Your task to perform on an android device: toggle pop-ups in chrome Image 0: 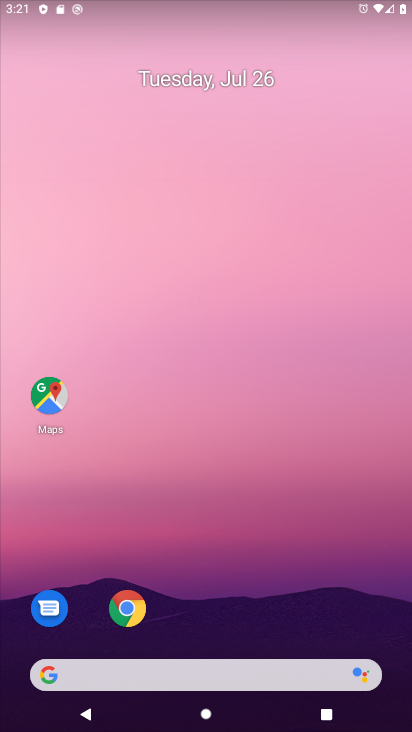
Step 0: drag from (380, 679) to (337, 137)
Your task to perform on an android device: toggle pop-ups in chrome Image 1: 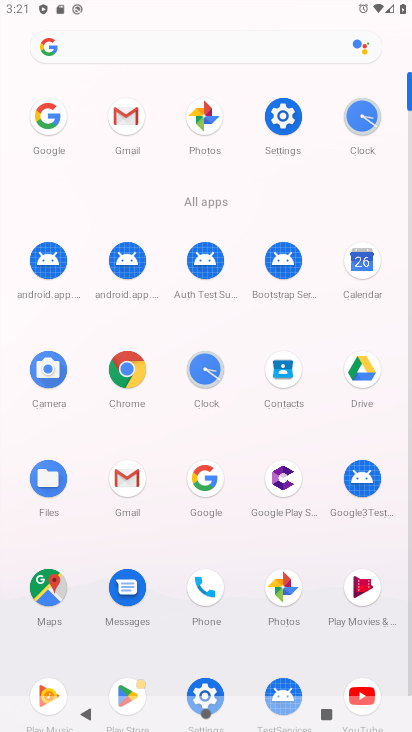
Step 1: click (126, 366)
Your task to perform on an android device: toggle pop-ups in chrome Image 2: 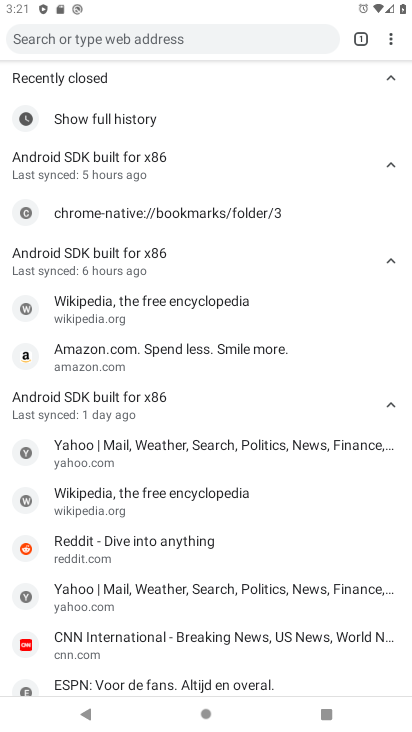
Step 2: click (394, 38)
Your task to perform on an android device: toggle pop-ups in chrome Image 3: 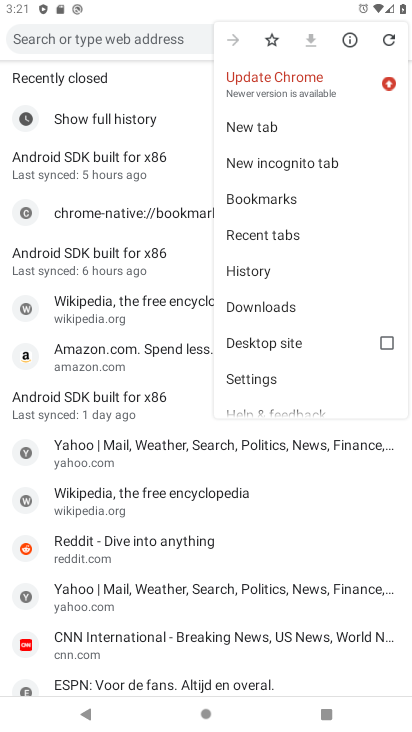
Step 3: click (259, 371)
Your task to perform on an android device: toggle pop-ups in chrome Image 4: 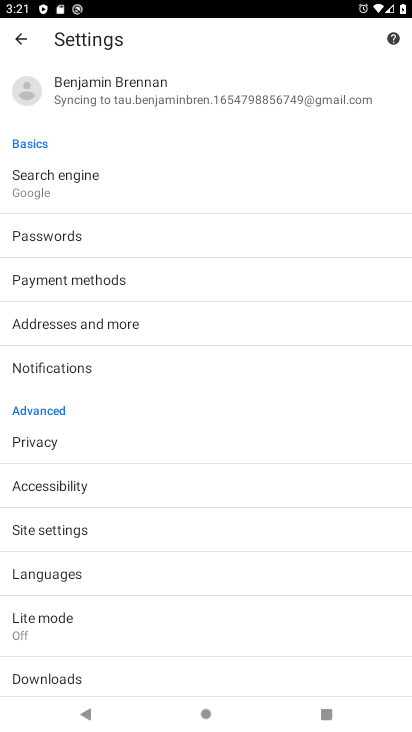
Step 4: click (77, 531)
Your task to perform on an android device: toggle pop-ups in chrome Image 5: 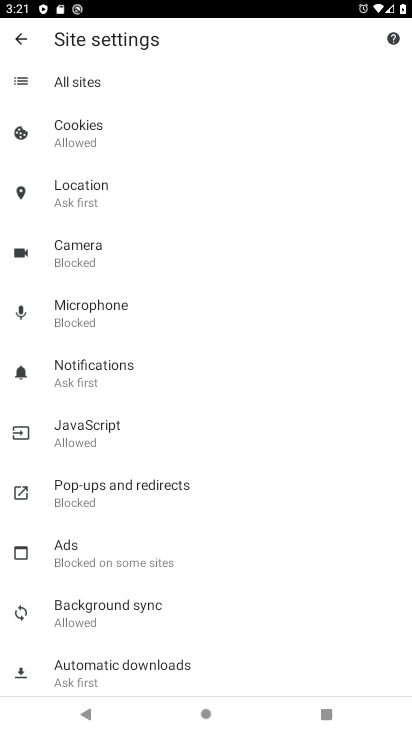
Step 5: click (122, 485)
Your task to perform on an android device: toggle pop-ups in chrome Image 6: 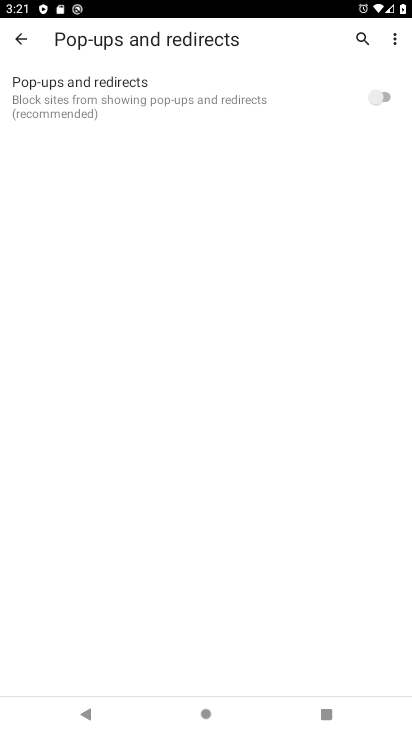
Step 6: click (385, 101)
Your task to perform on an android device: toggle pop-ups in chrome Image 7: 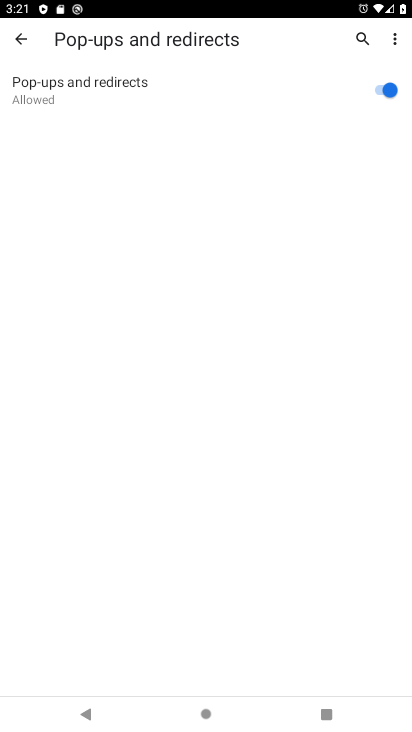
Step 7: task complete